Your task to perform on an android device: Is it going to rain tomorrow? Image 0: 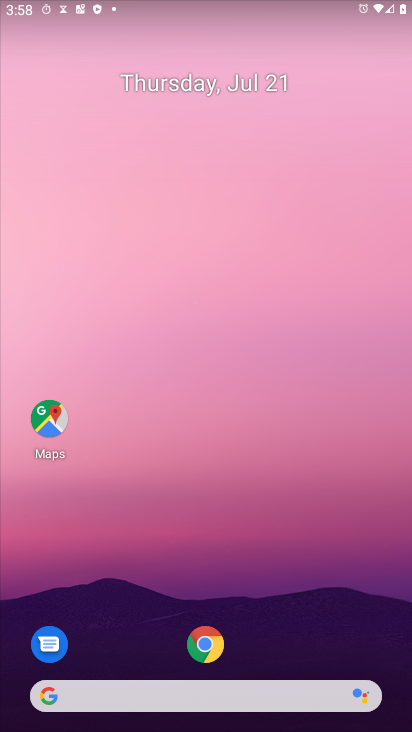
Step 0: press home button
Your task to perform on an android device: Is it going to rain tomorrow? Image 1: 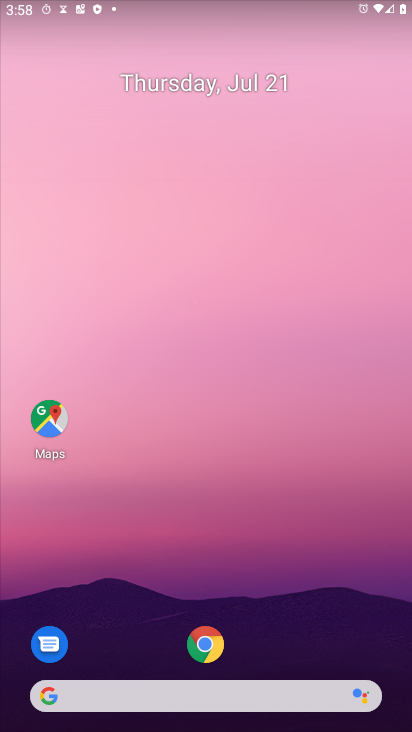
Step 1: click (48, 698)
Your task to perform on an android device: Is it going to rain tomorrow? Image 2: 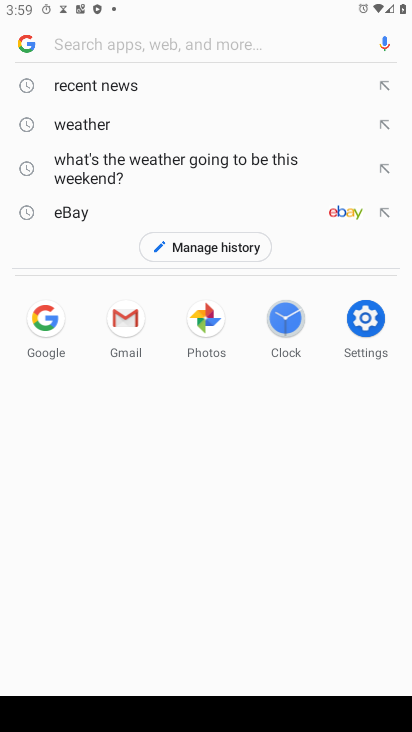
Step 2: type "Is it going to rain tomorrow?"
Your task to perform on an android device: Is it going to rain tomorrow? Image 3: 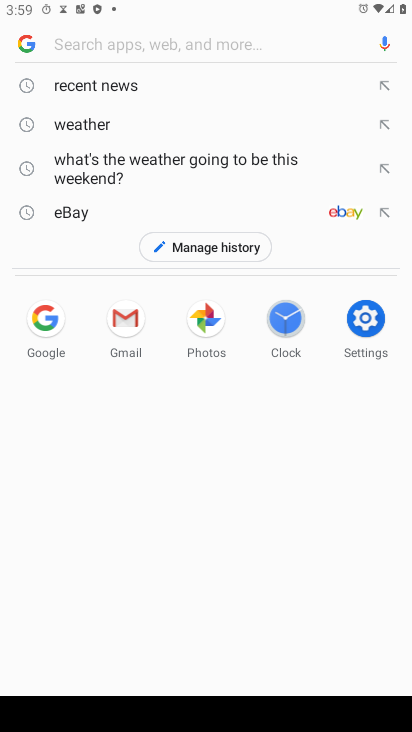
Step 3: click (120, 41)
Your task to perform on an android device: Is it going to rain tomorrow? Image 4: 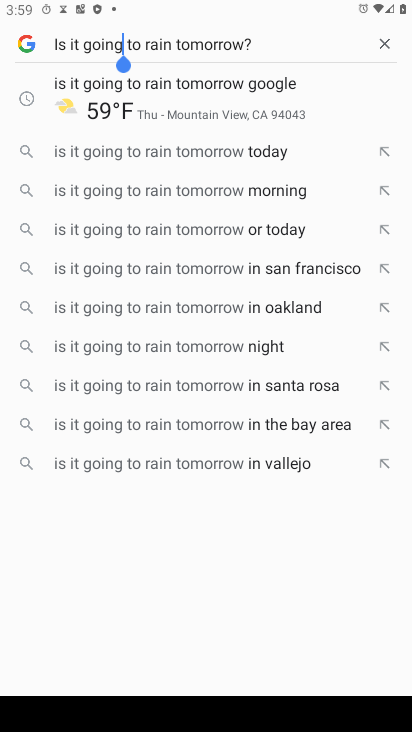
Step 4: press enter
Your task to perform on an android device: Is it going to rain tomorrow? Image 5: 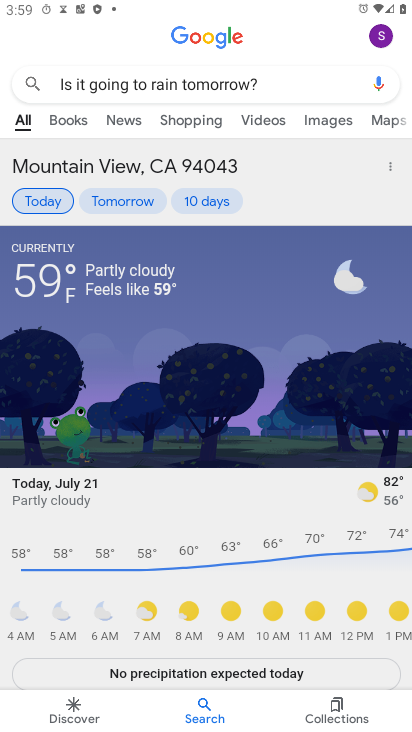
Step 5: task complete